Your task to perform on an android device: Open Amazon Image 0: 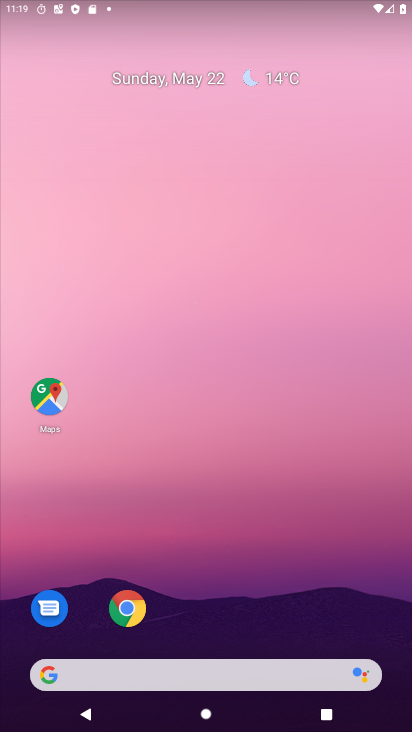
Step 0: click (131, 616)
Your task to perform on an android device: Open Amazon Image 1: 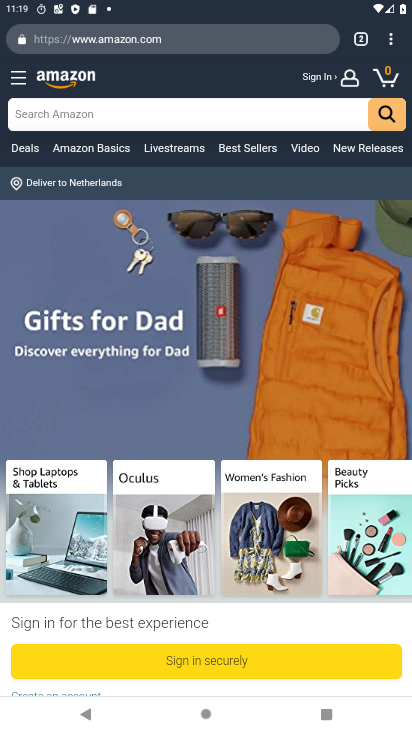
Step 1: task complete